Your task to perform on an android device: Add usb-c to the cart on costco, then select checkout. Image 0: 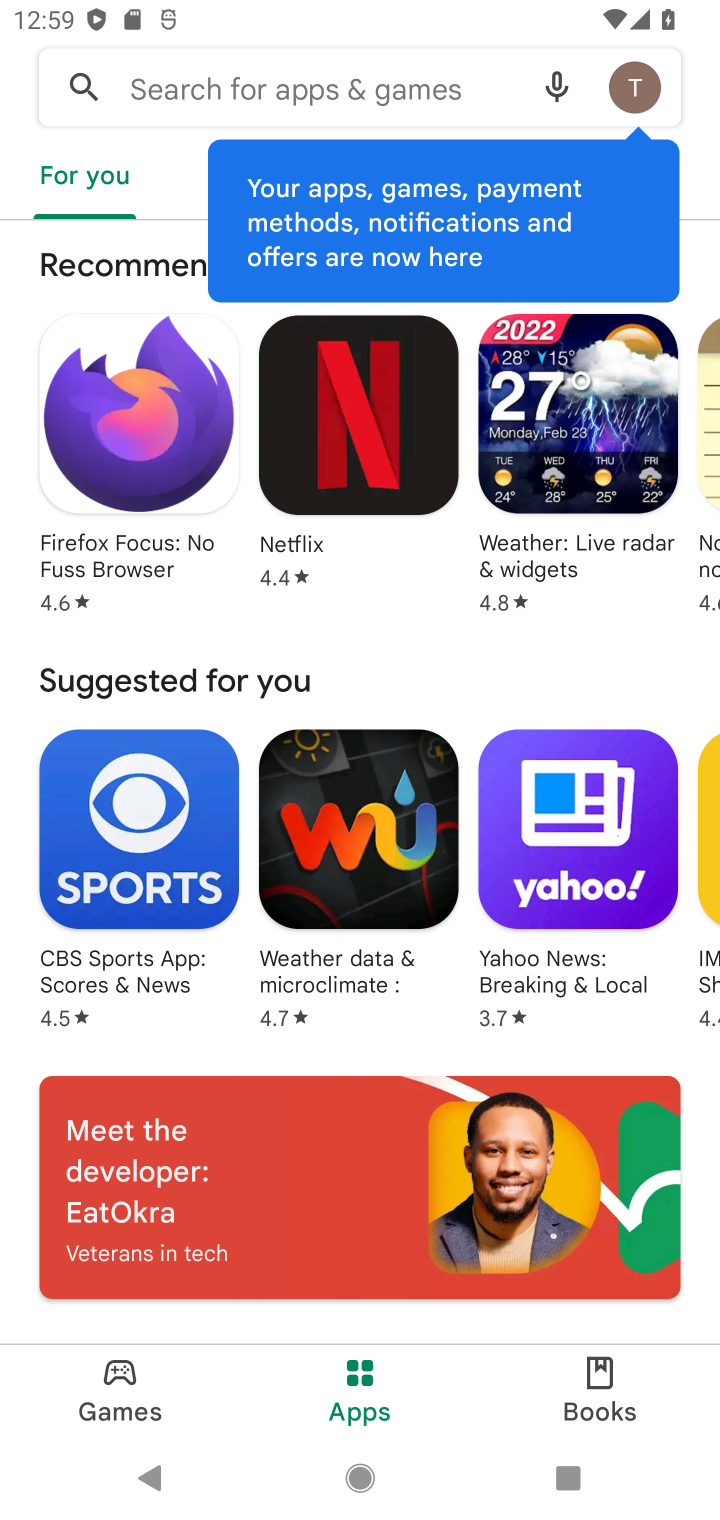
Step 0: press home button
Your task to perform on an android device: Add usb-c to the cart on costco, then select checkout. Image 1: 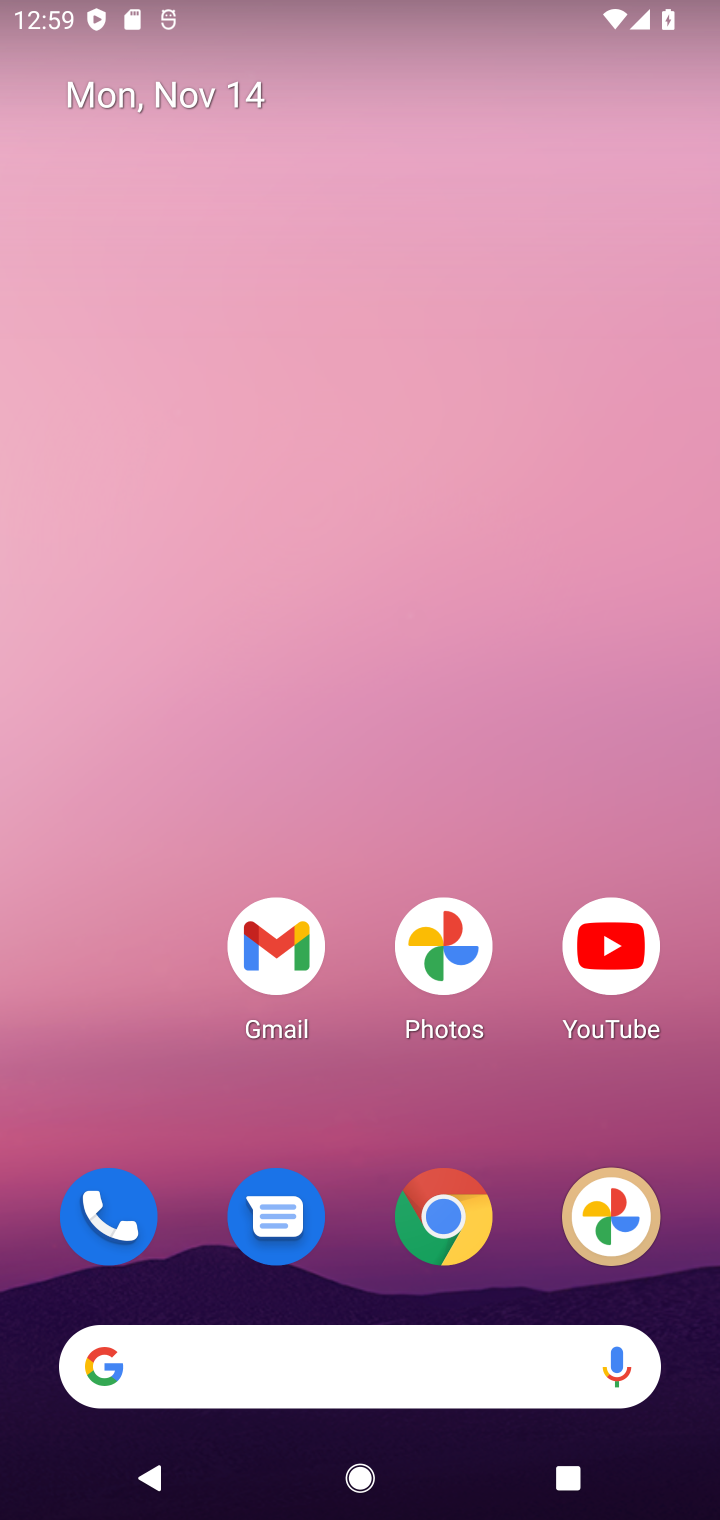
Step 1: click (452, 1205)
Your task to perform on an android device: Add usb-c to the cart on costco, then select checkout. Image 2: 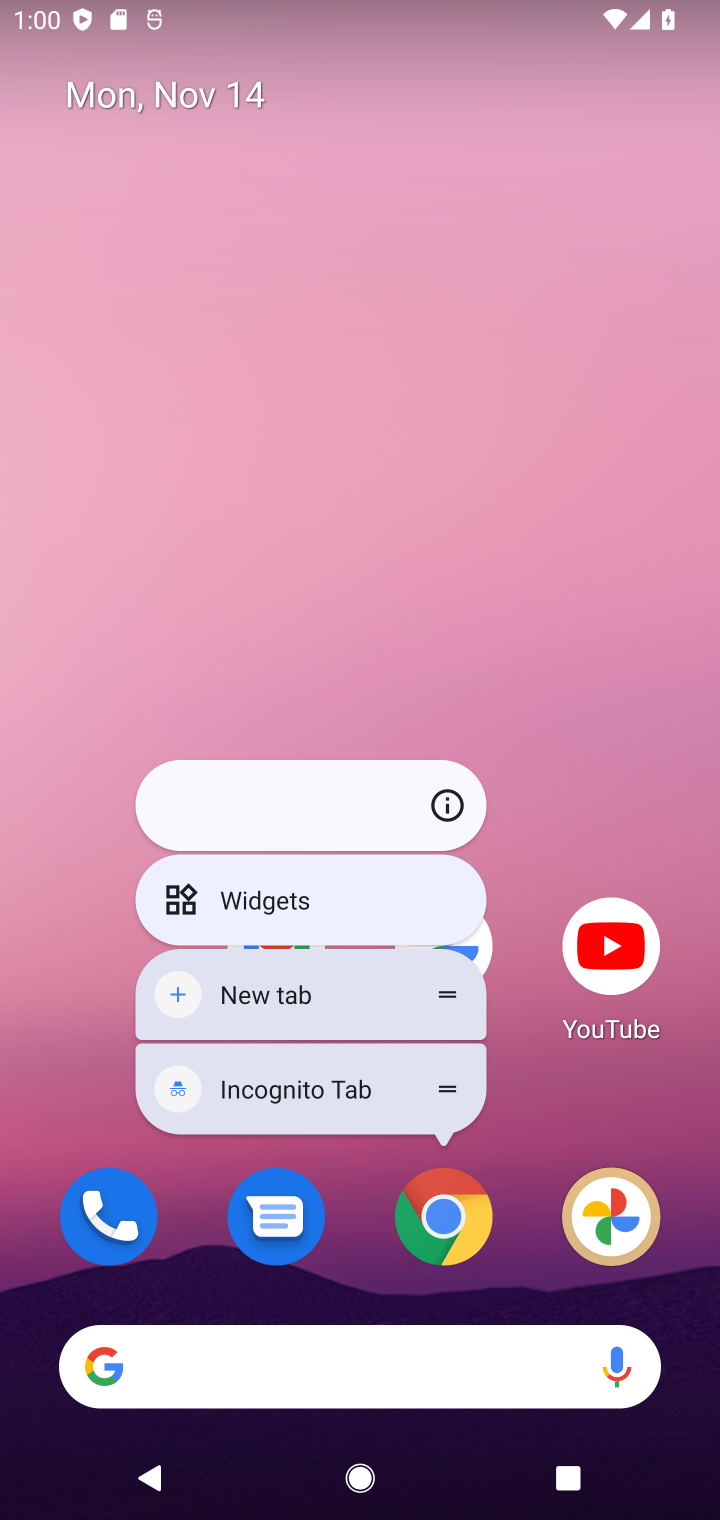
Step 2: click (457, 1219)
Your task to perform on an android device: Add usb-c to the cart on costco, then select checkout. Image 3: 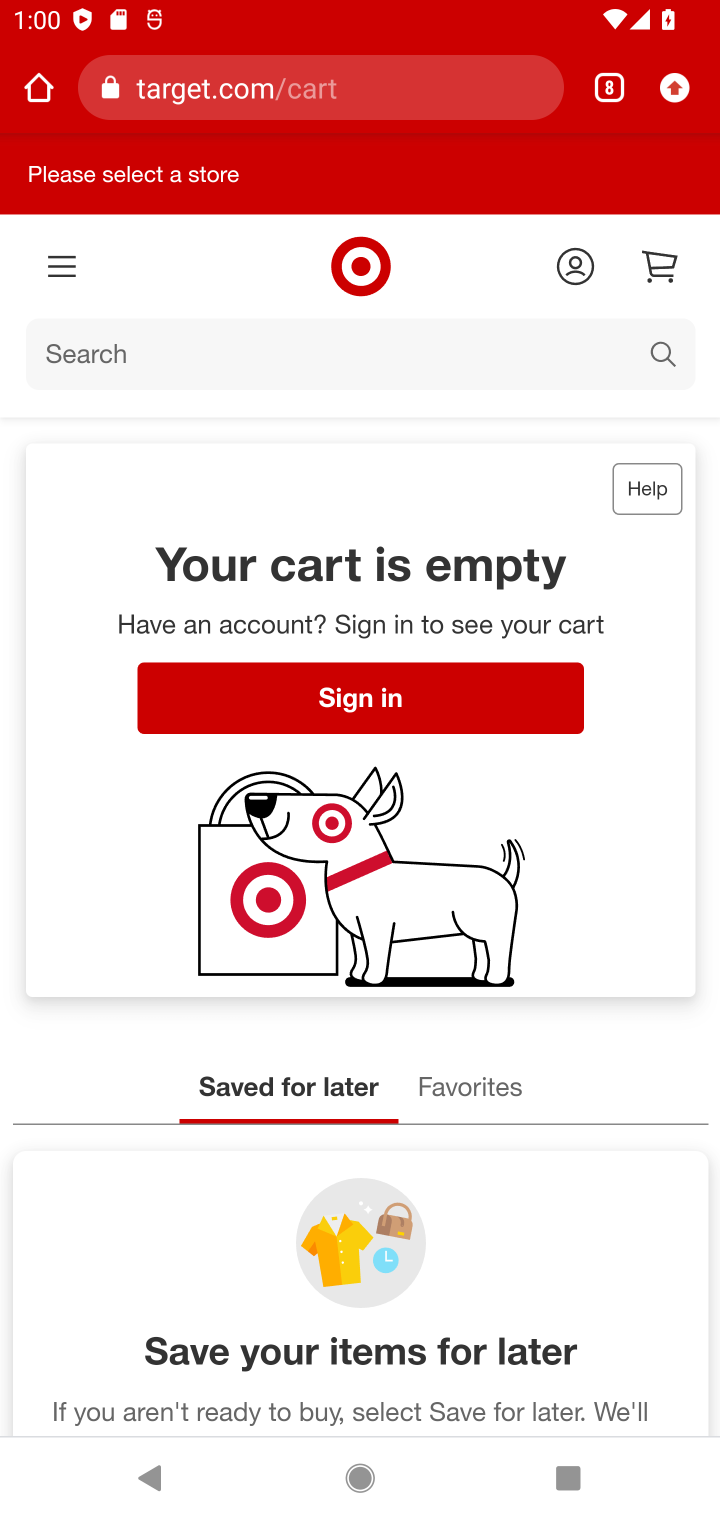
Step 3: click (620, 90)
Your task to perform on an android device: Add usb-c to the cart on costco, then select checkout. Image 4: 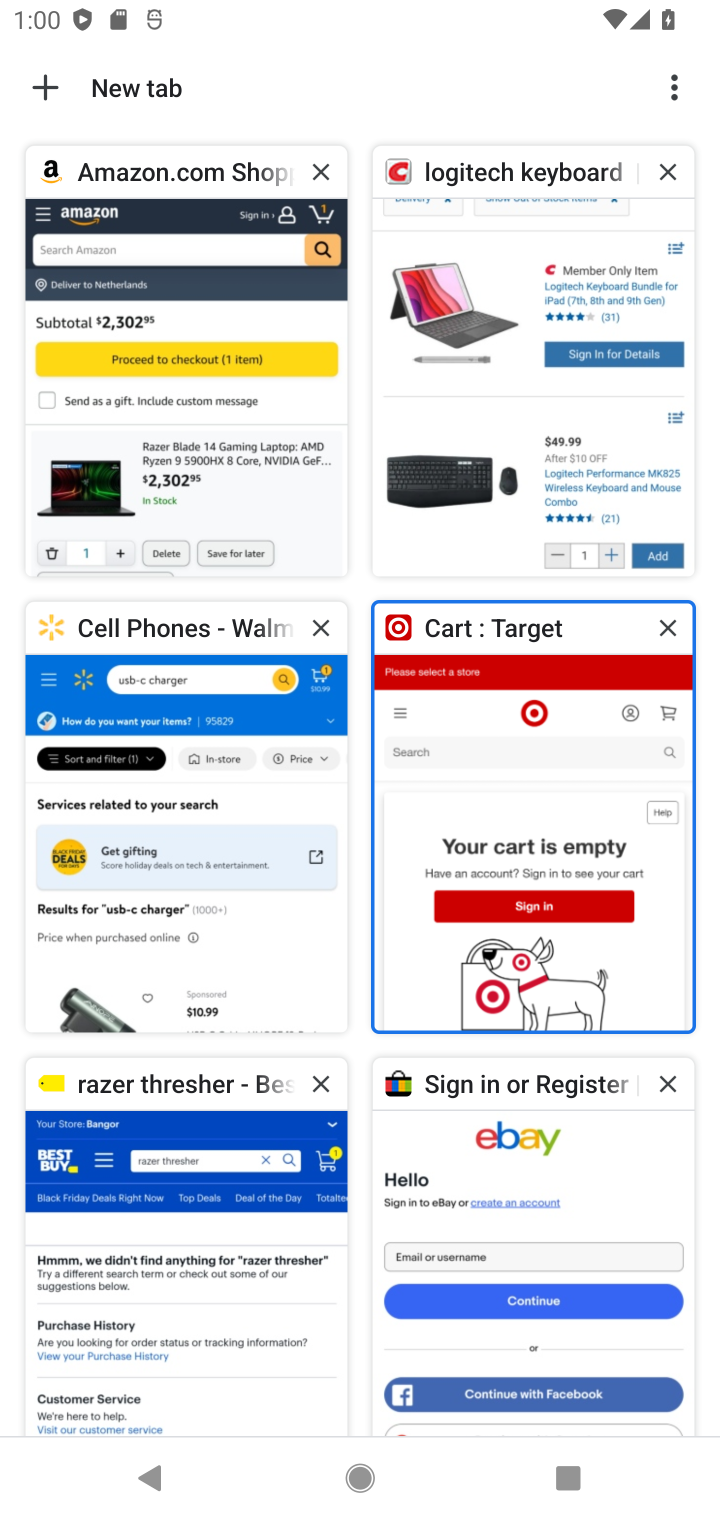
Step 4: click (477, 443)
Your task to perform on an android device: Add usb-c to the cart on costco, then select checkout. Image 5: 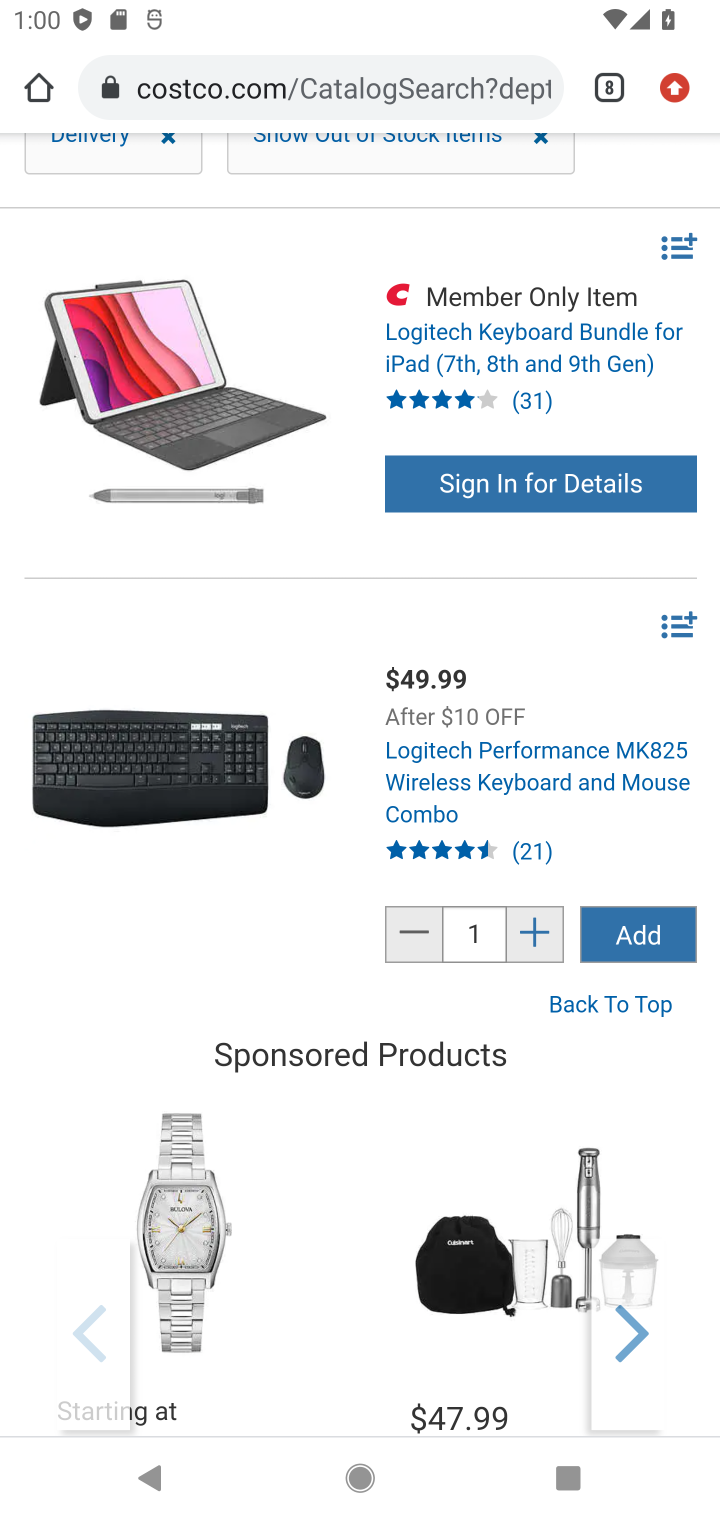
Step 5: drag from (313, 305) to (147, 980)
Your task to perform on an android device: Add usb-c to the cart on costco, then select checkout. Image 6: 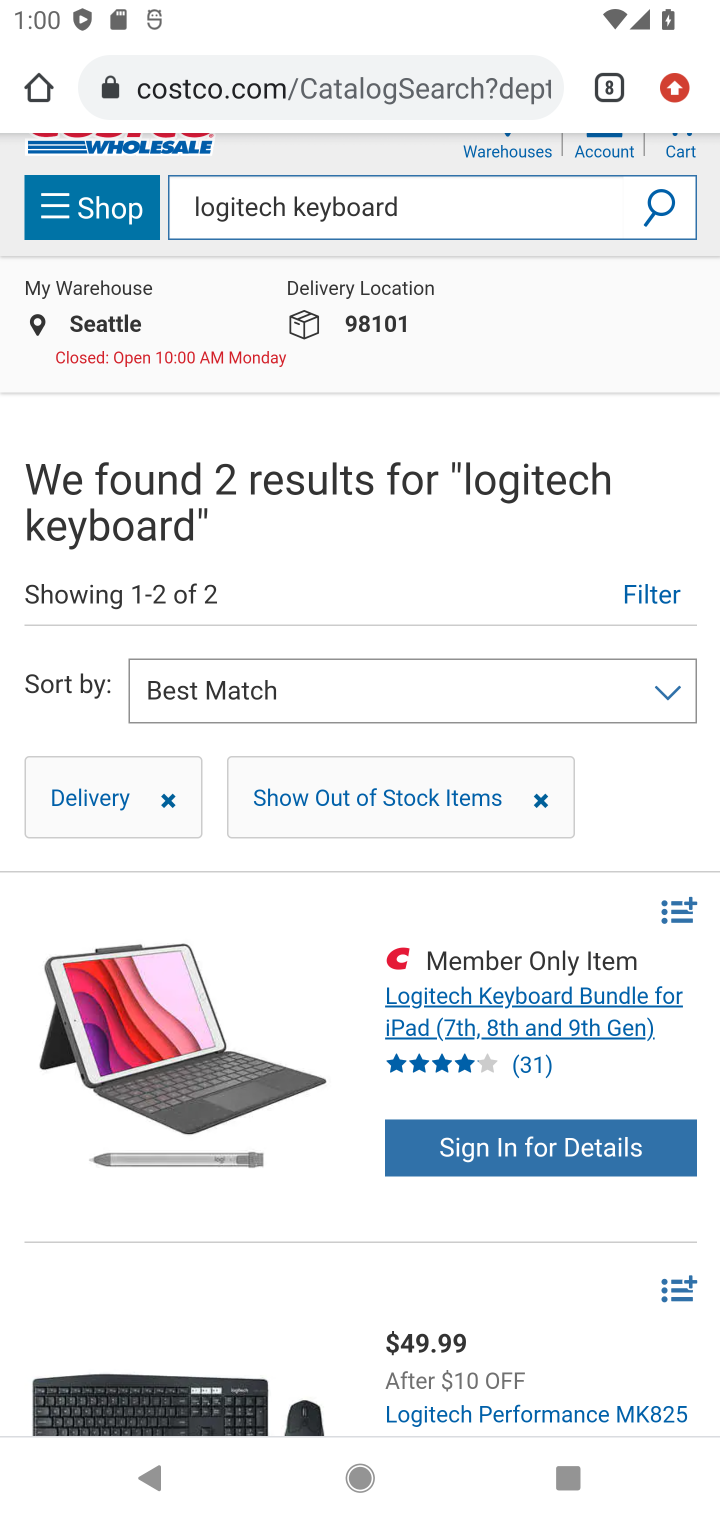
Step 6: click (429, 210)
Your task to perform on an android device: Add usb-c to the cart on costco, then select checkout. Image 7: 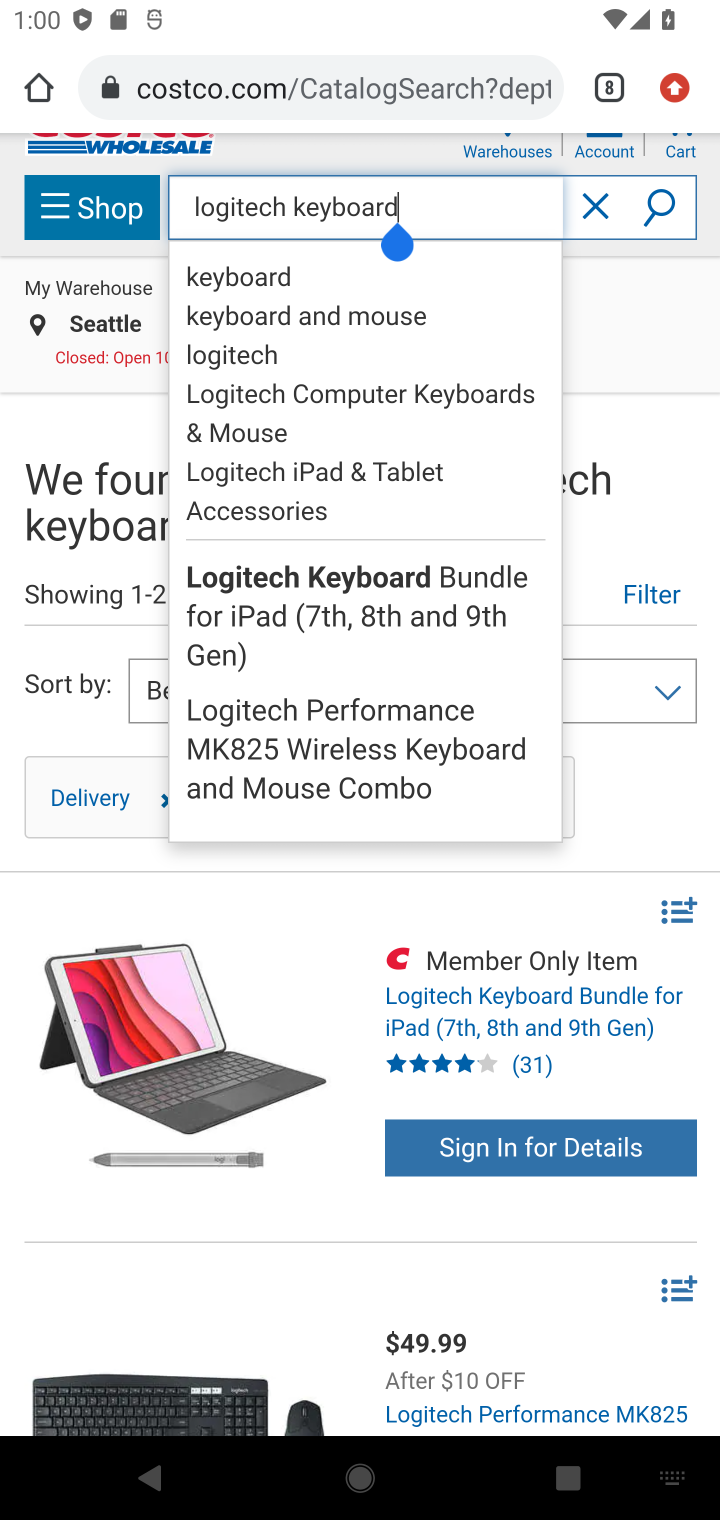
Step 7: click (589, 212)
Your task to perform on an android device: Add usb-c to the cart on costco, then select checkout. Image 8: 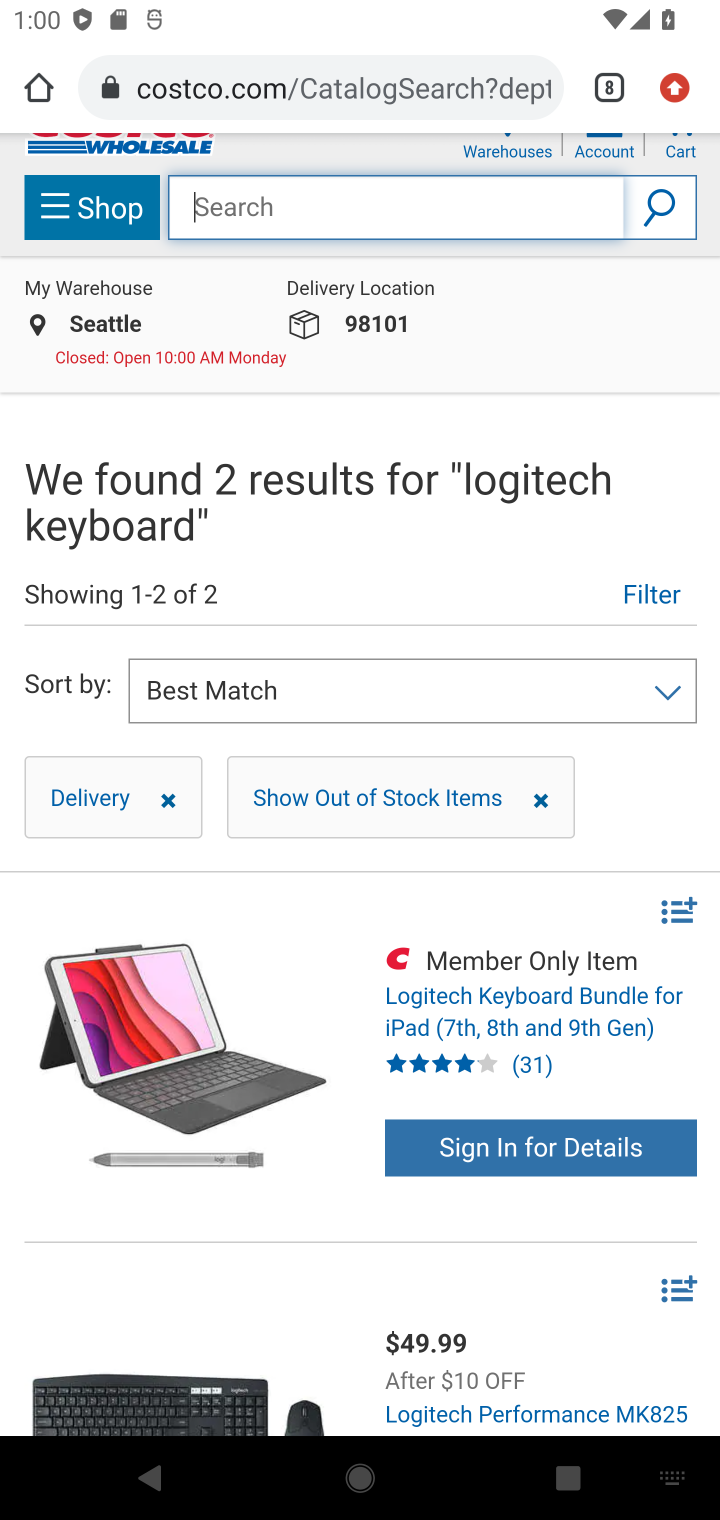
Step 8: type "usb-c "
Your task to perform on an android device: Add usb-c to the cart on costco, then select checkout. Image 9: 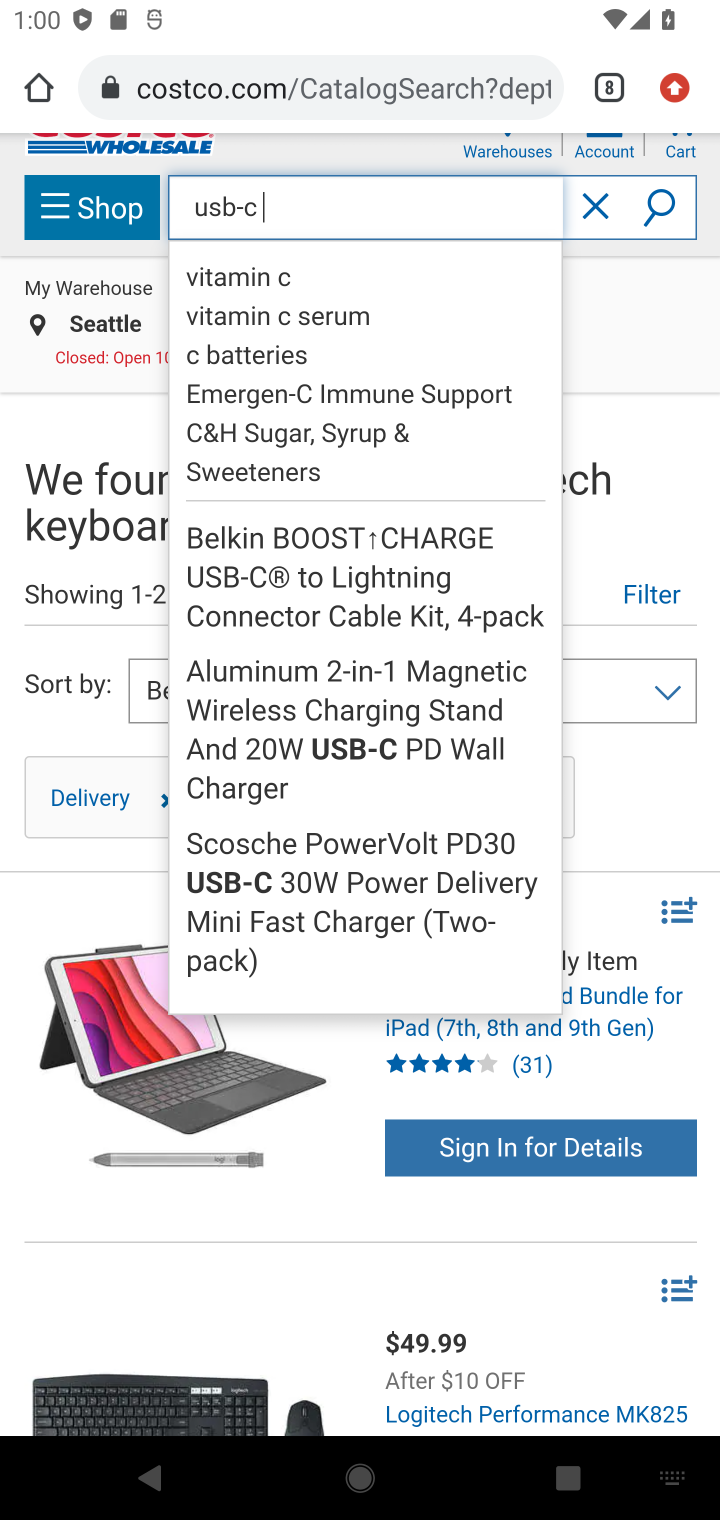
Step 9: click (663, 209)
Your task to perform on an android device: Add usb-c to the cart on costco, then select checkout. Image 10: 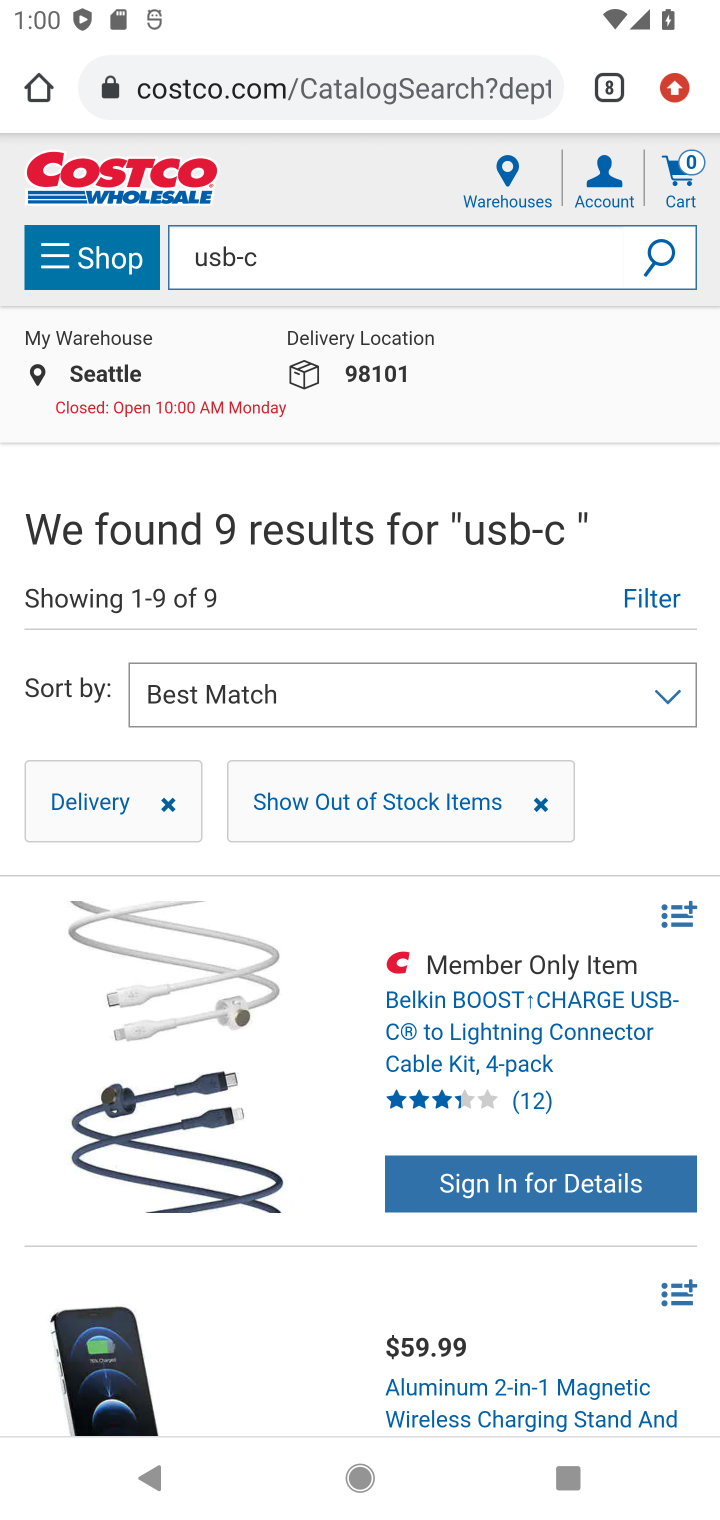
Step 10: click (555, 1017)
Your task to perform on an android device: Add usb-c to the cart on costco, then select checkout. Image 11: 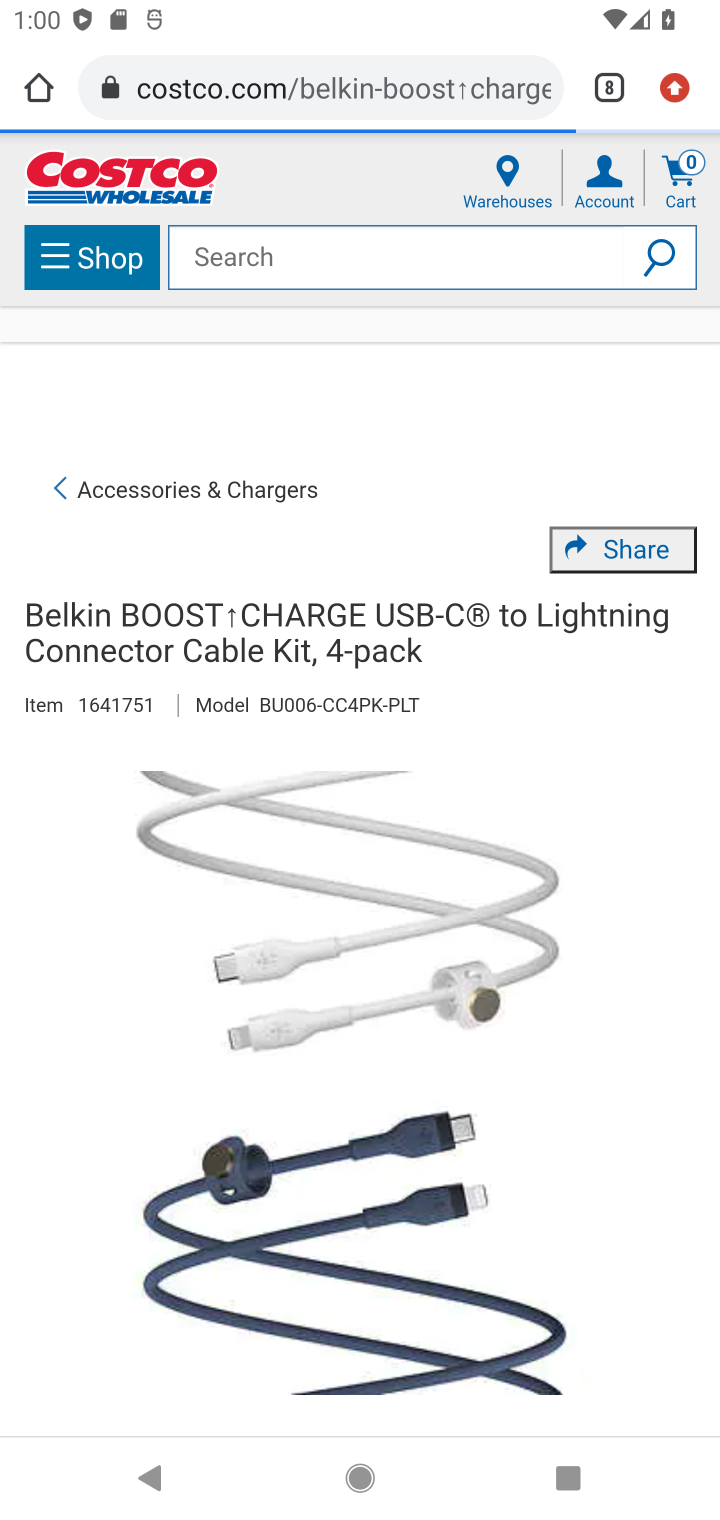
Step 11: drag from (590, 1057) to (553, 40)
Your task to perform on an android device: Add usb-c to the cart on costco, then select checkout. Image 12: 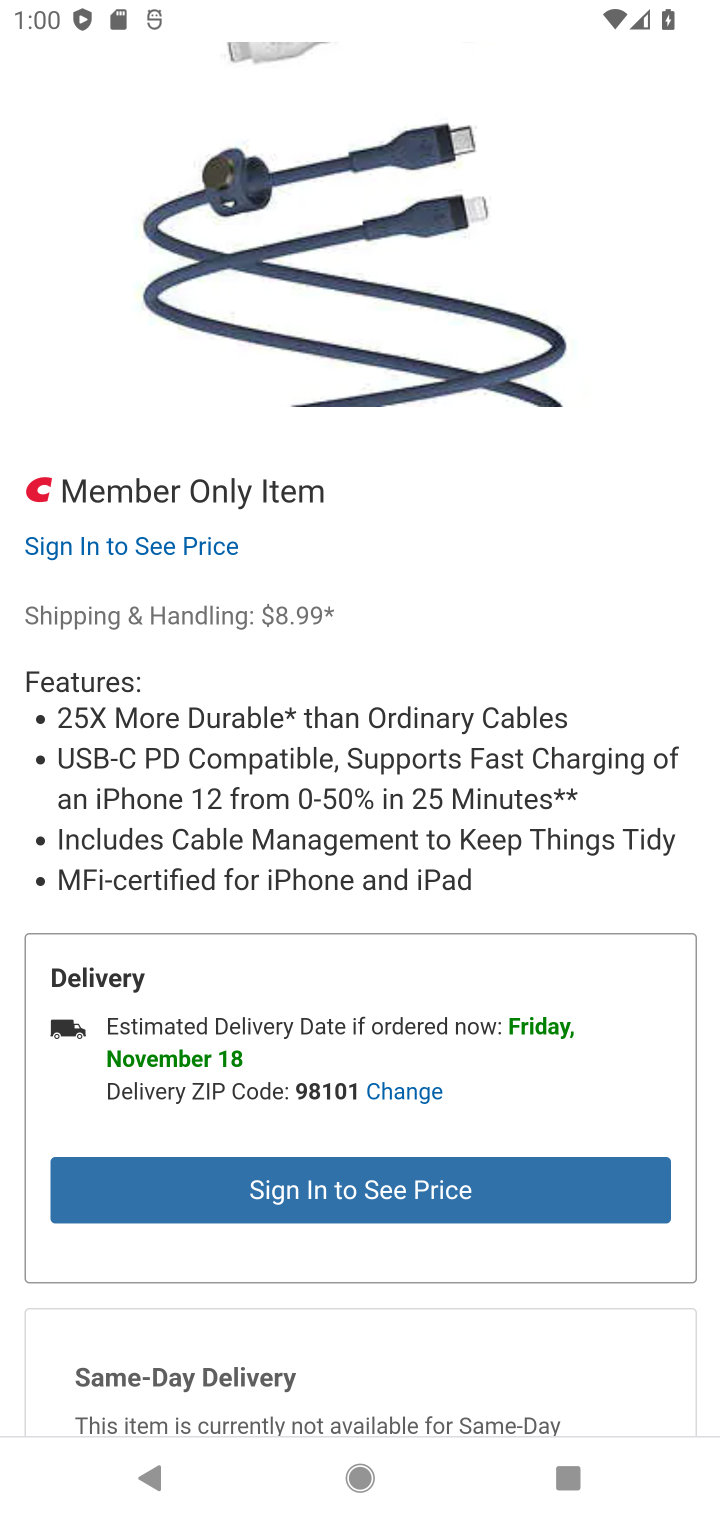
Step 12: drag from (430, 998) to (681, 115)
Your task to perform on an android device: Add usb-c to the cart on costco, then select checkout. Image 13: 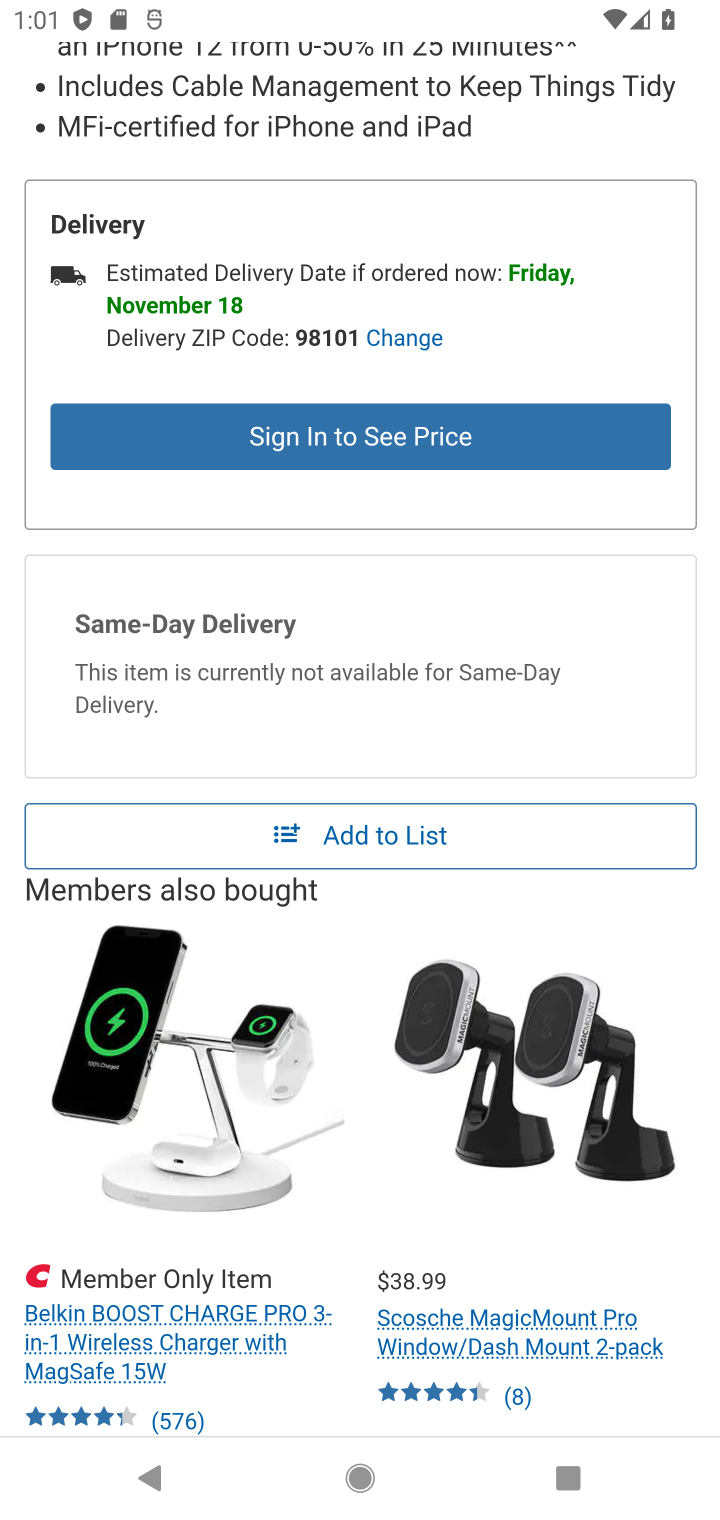
Step 13: click (372, 838)
Your task to perform on an android device: Add usb-c to the cart on costco, then select checkout. Image 14: 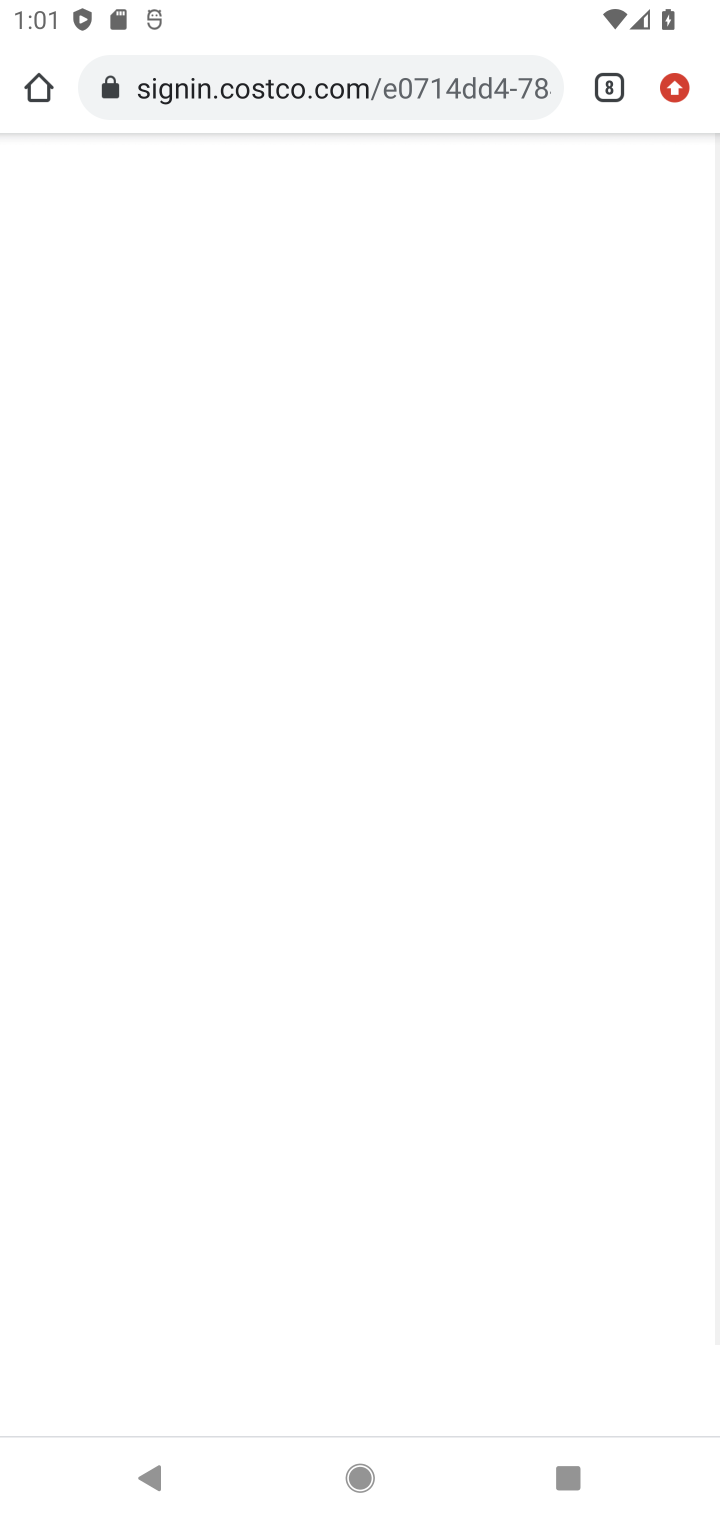
Step 14: task complete